Your task to perform on an android device: Go to sound settings Image 0: 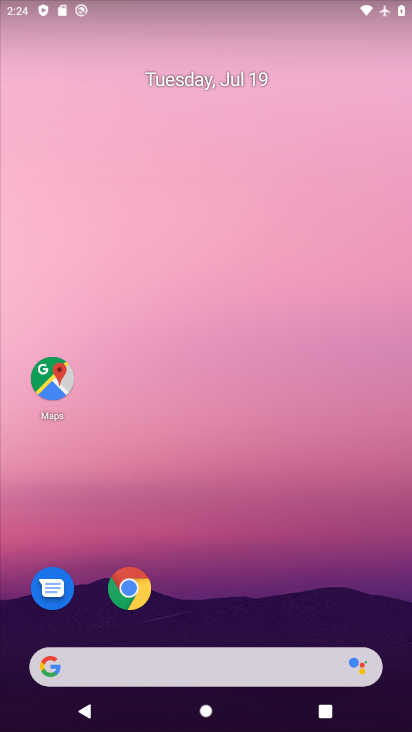
Step 0: drag from (275, 633) to (336, 103)
Your task to perform on an android device: Go to sound settings Image 1: 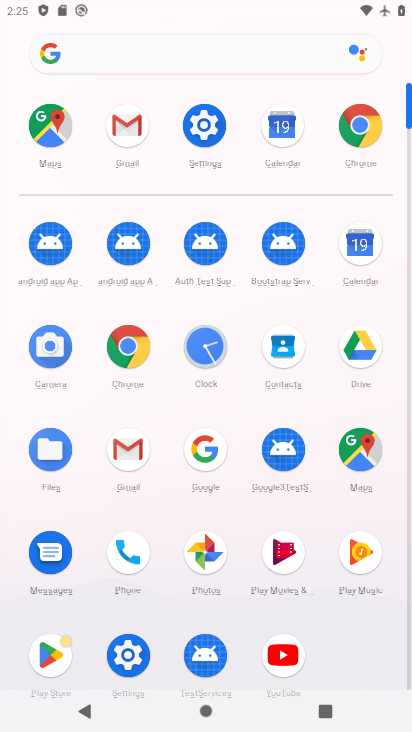
Step 1: click (203, 138)
Your task to perform on an android device: Go to sound settings Image 2: 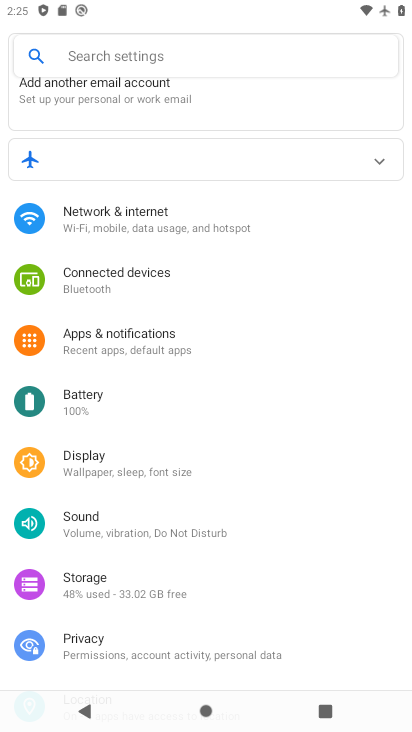
Step 2: click (79, 529)
Your task to perform on an android device: Go to sound settings Image 3: 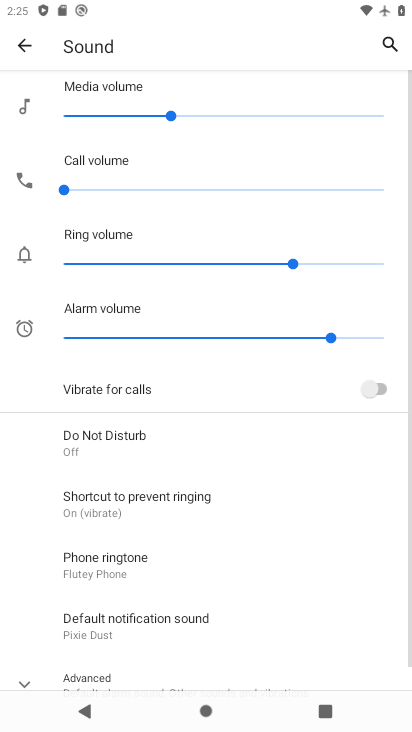
Step 3: task complete